Your task to perform on an android device: open a new tab in the chrome app Image 0: 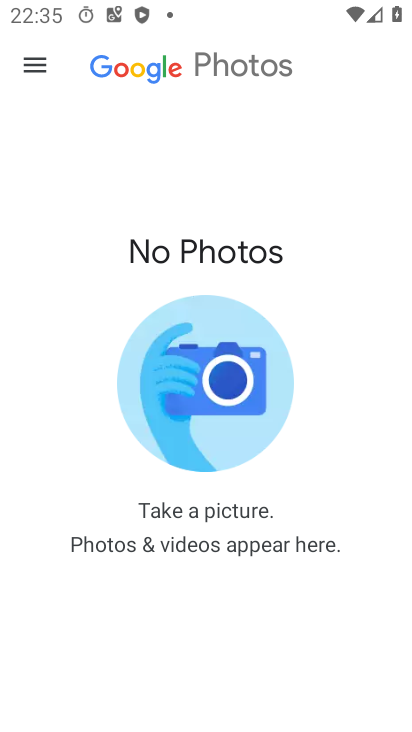
Step 0: press home button
Your task to perform on an android device: open a new tab in the chrome app Image 1: 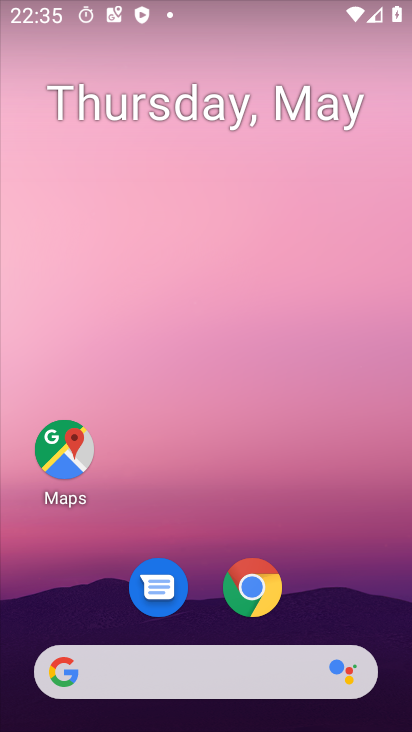
Step 1: click (241, 582)
Your task to perform on an android device: open a new tab in the chrome app Image 2: 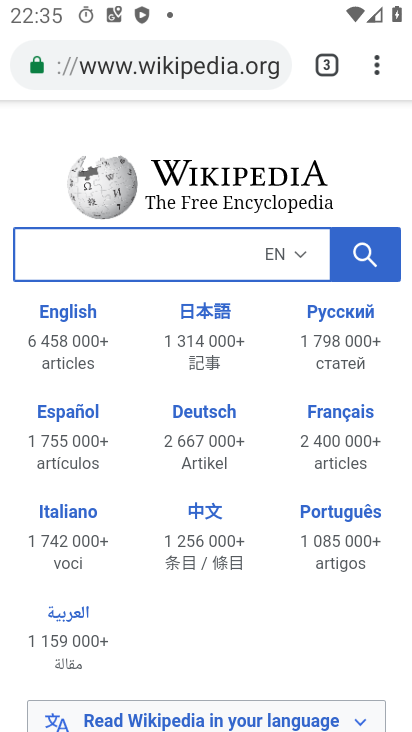
Step 2: click (375, 66)
Your task to perform on an android device: open a new tab in the chrome app Image 3: 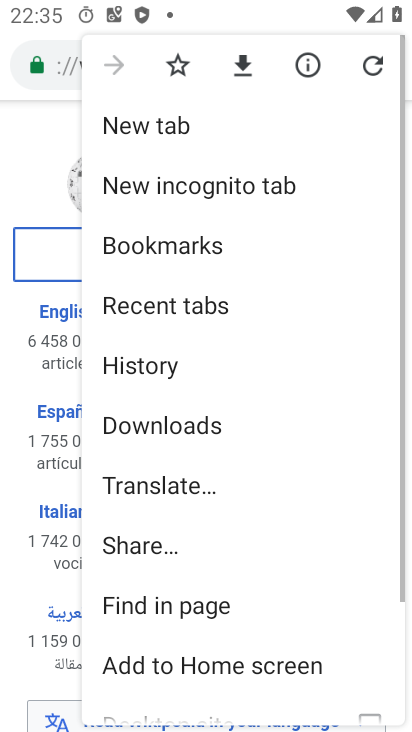
Step 3: click (151, 125)
Your task to perform on an android device: open a new tab in the chrome app Image 4: 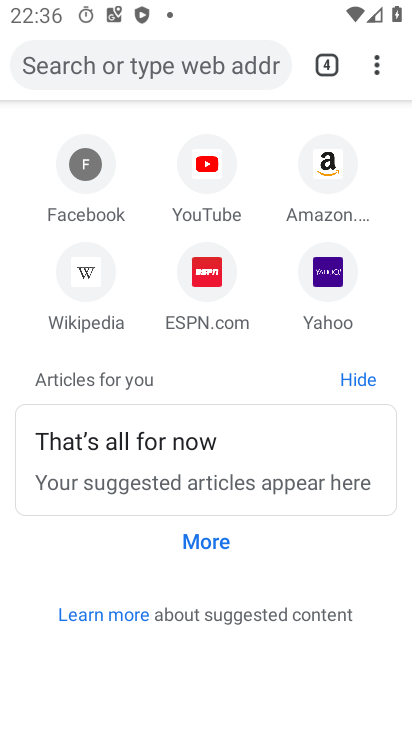
Step 4: task complete